Your task to perform on an android device: Go to notification settings Image 0: 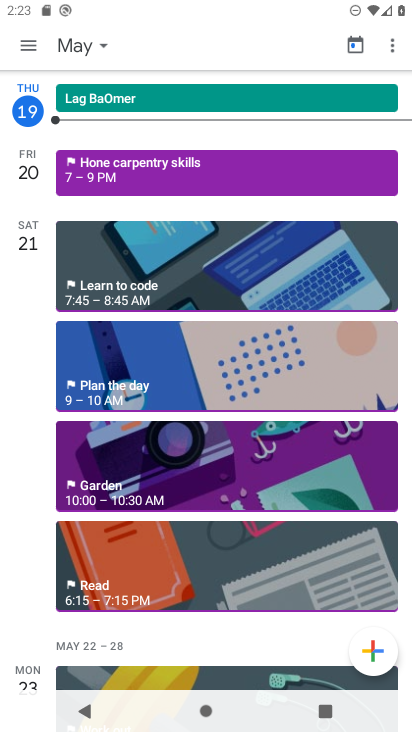
Step 0: press home button
Your task to perform on an android device: Go to notification settings Image 1: 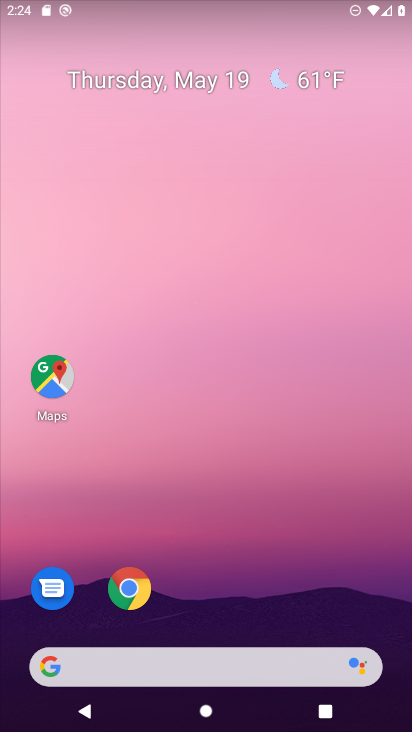
Step 1: drag from (310, 633) to (336, 17)
Your task to perform on an android device: Go to notification settings Image 2: 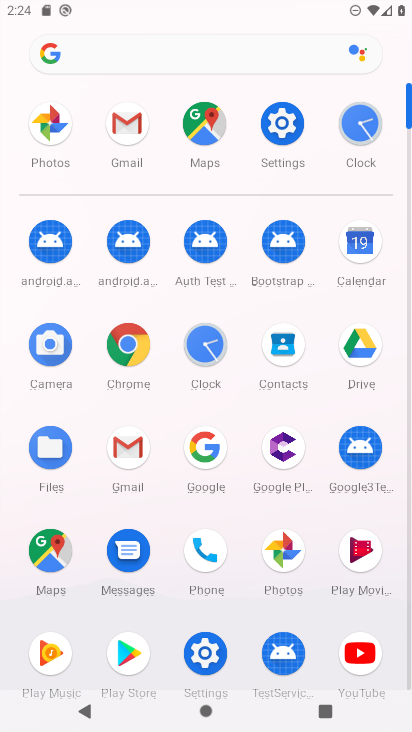
Step 2: click (279, 126)
Your task to perform on an android device: Go to notification settings Image 3: 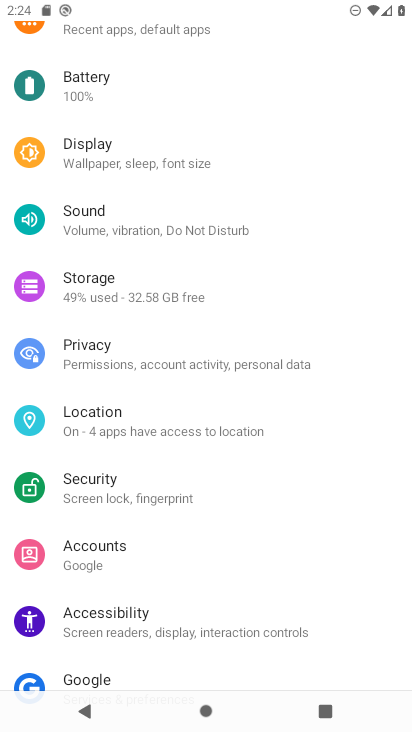
Step 3: drag from (258, 175) to (257, 408)
Your task to perform on an android device: Go to notification settings Image 4: 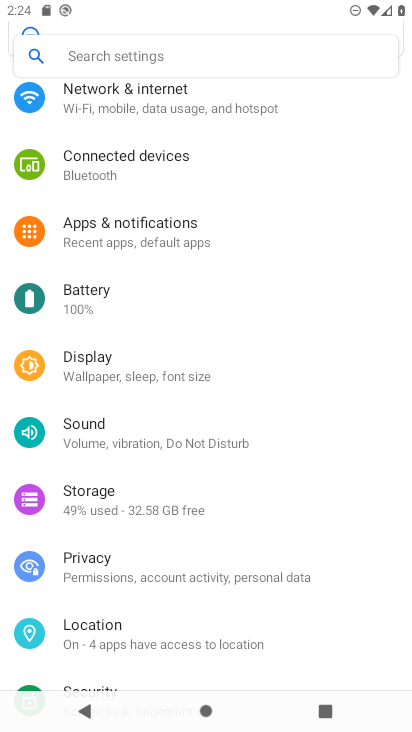
Step 4: click (160, 226)
Your task to perform on an android device: Go to notification settings Image 5: 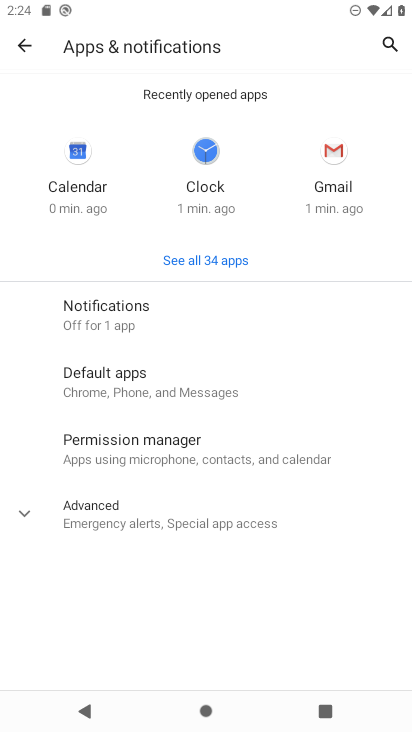
Step 5: task complete